Your task to perform on an android device: change the clock style Image 0: 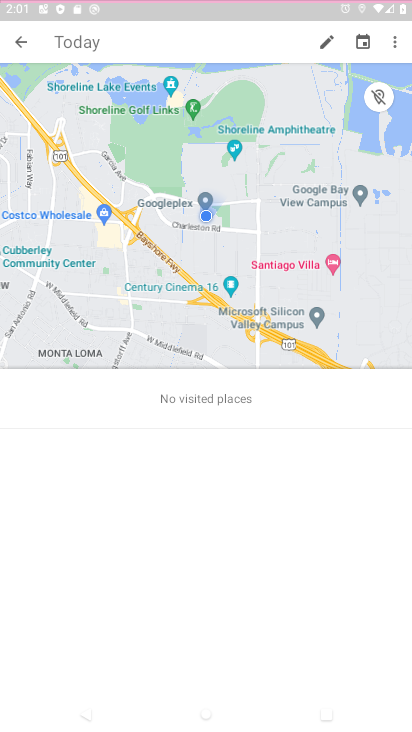
Step 0: click (227, 79)
Your task to perform on an android device: change the clock style Image 1: 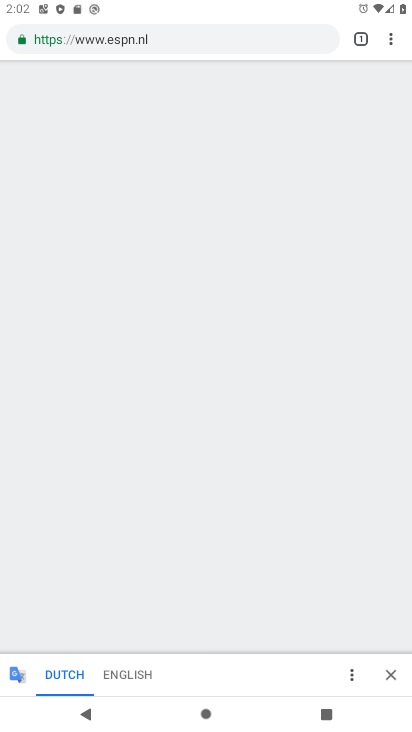
Step 1: press home button
Your task to perform on an android device: change the clock style Image 2: 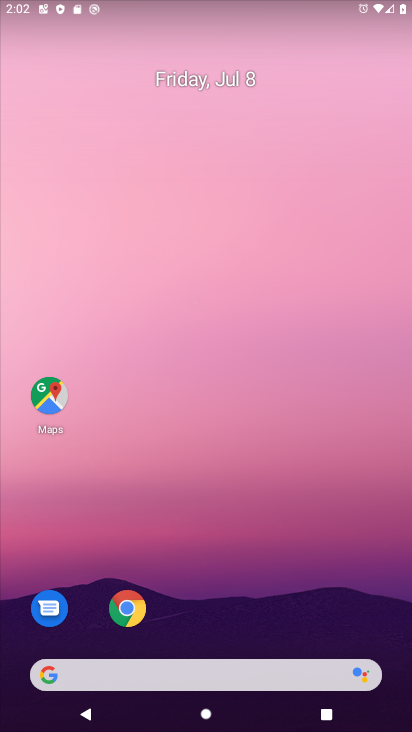
Step 2: drag from (208, 646) to (237, 6)
Your task to perform on an android device: change the clock style Image 3: 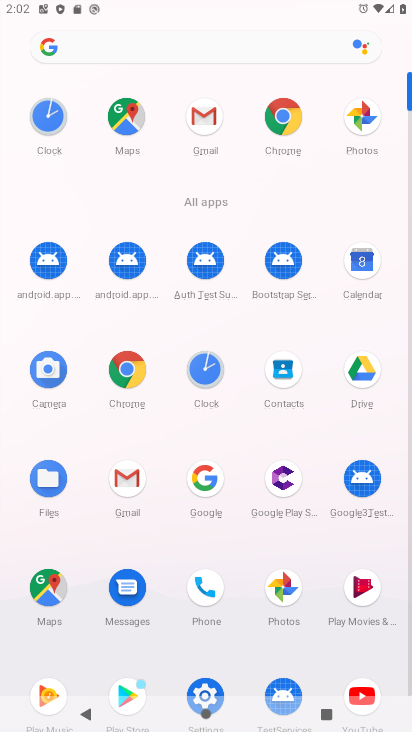
Step 3: click (210, 378)
Your task to perform on an android device: change the clock style Image 4: 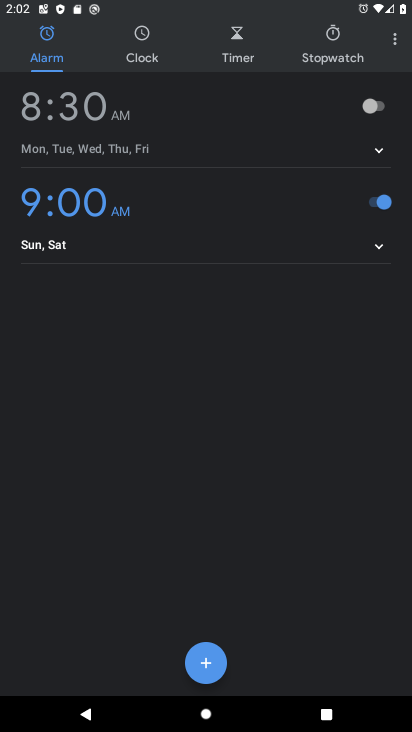
Step 4: click (392, 43)
Your task to perform on an android device: change the clock style Image 5: 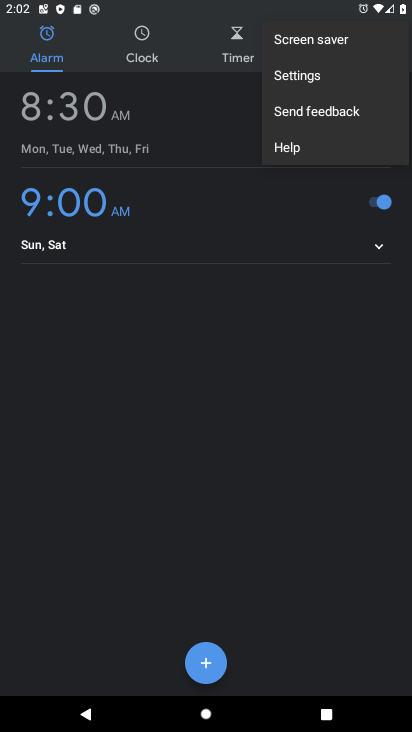
Step 5: click (401, 38)
Your task to perform on an android device: change the clock style Image 6: 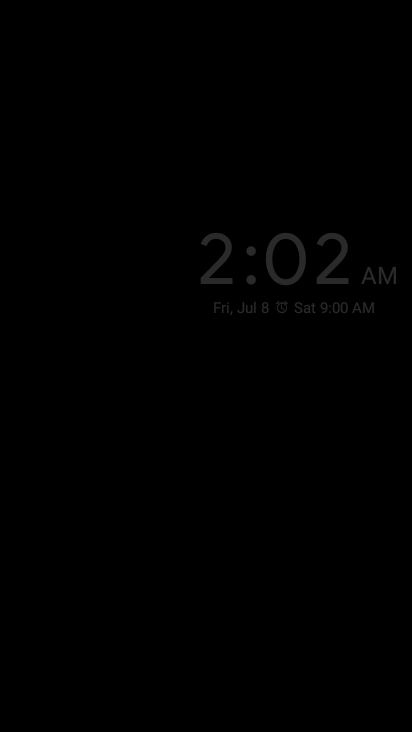
Step 6: click (325, 73)
Your task to perform on an android device: change the clock style Image 7: 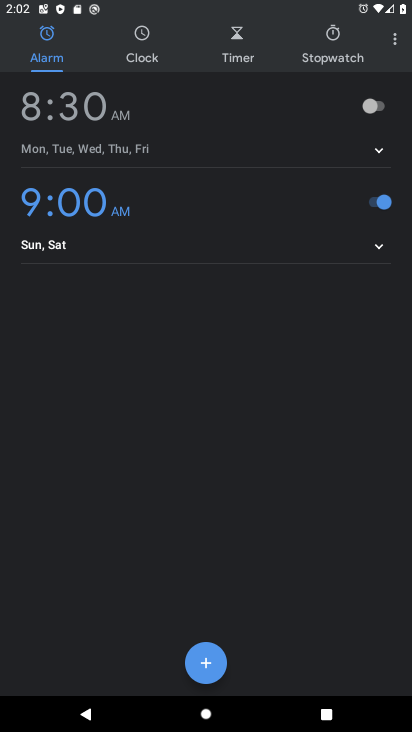
Step 7: click (387, 44)
Your task to perform on an android device: change the clock style Image 8: 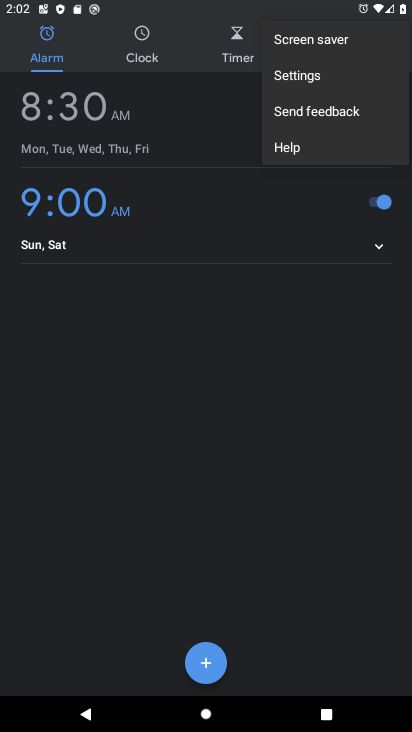
Step 8: click (330, 76)
Your task to perform on an android device: change the clock style Image 9: 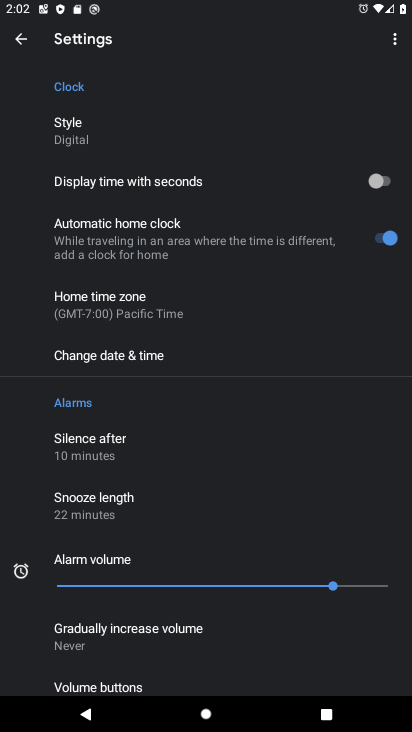
Step 9: click (91, 137)
Your task to perform on an android device: change the clock style Image 10: 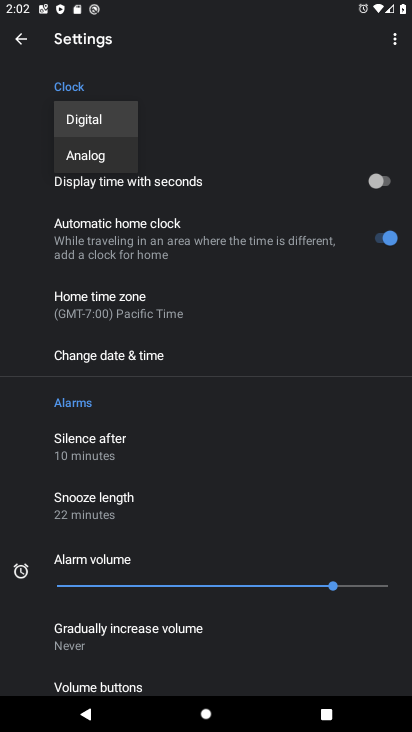
Step 10: click (112, 148)
Your task to perform on an android device: change the clock style Image 11: 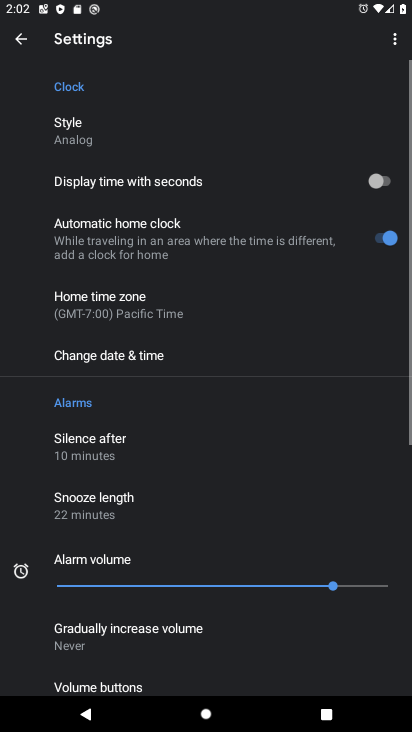
Step 11: task complete